Your task to perform on an android device: Clear all items from cart on newegg. Add "bose soundsport free" to the cart on newegg Image 0: 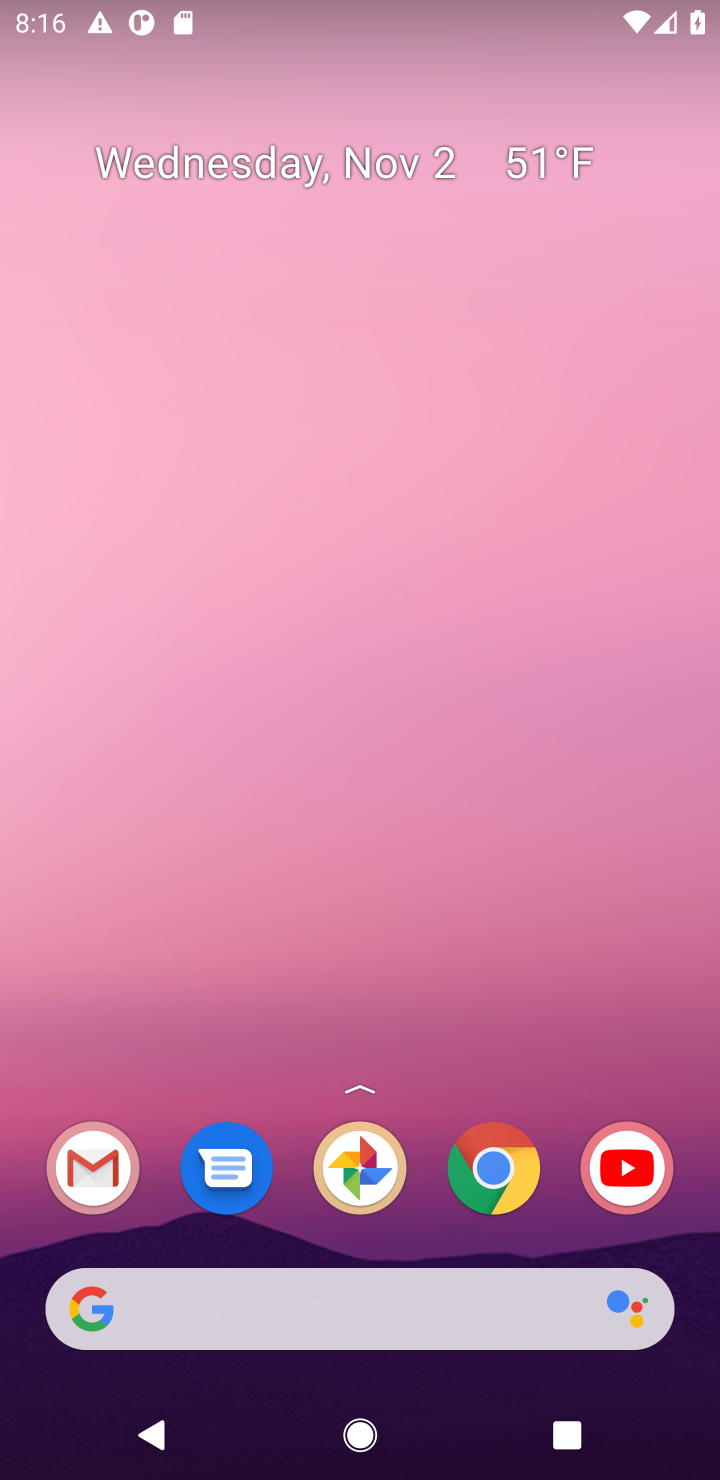
Step 0: click (299, 1315)
Your task to perform on an android device: Clear all items from cart on newegg. Add "bose soundsport free" to the cart on newegg Image 1: 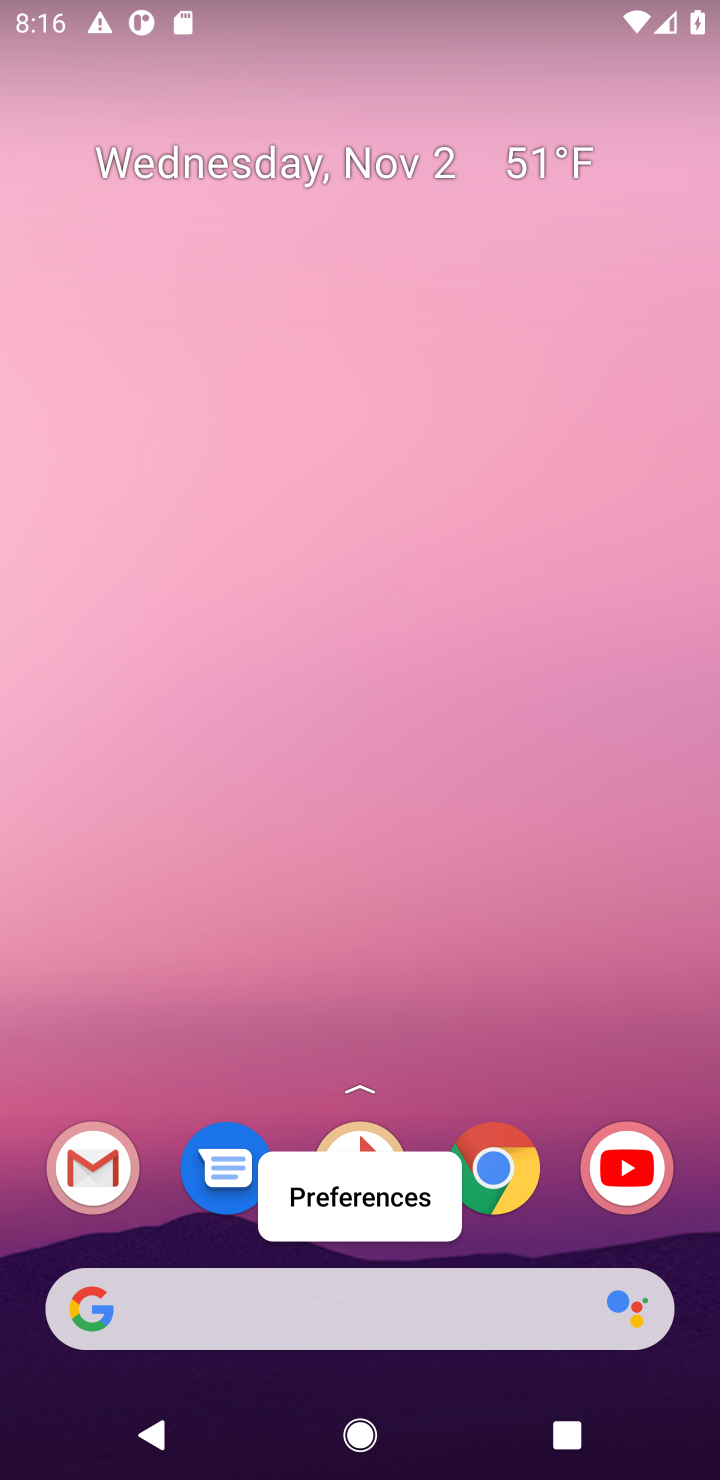
Step 1: click (299, 1315)
Your task to perform on an android device: Clear all items from cart on newegg. Add "bose soundsport free" to the cart on newegg Image 2: 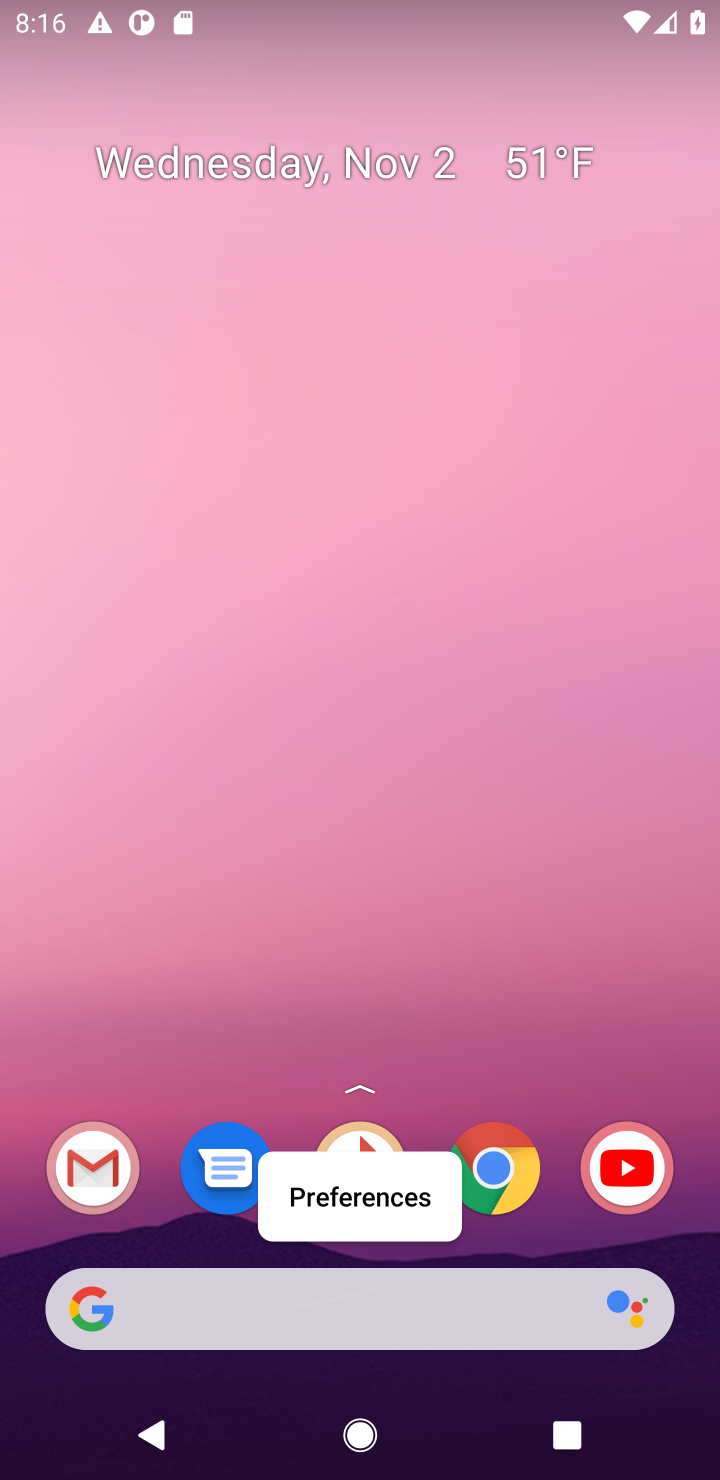
Step 2: click (299, 1315)
Your task to perform on an android device: Clear all items from cart on newegg. Add "bose soundsport free" to the cart on newegg Image 3: 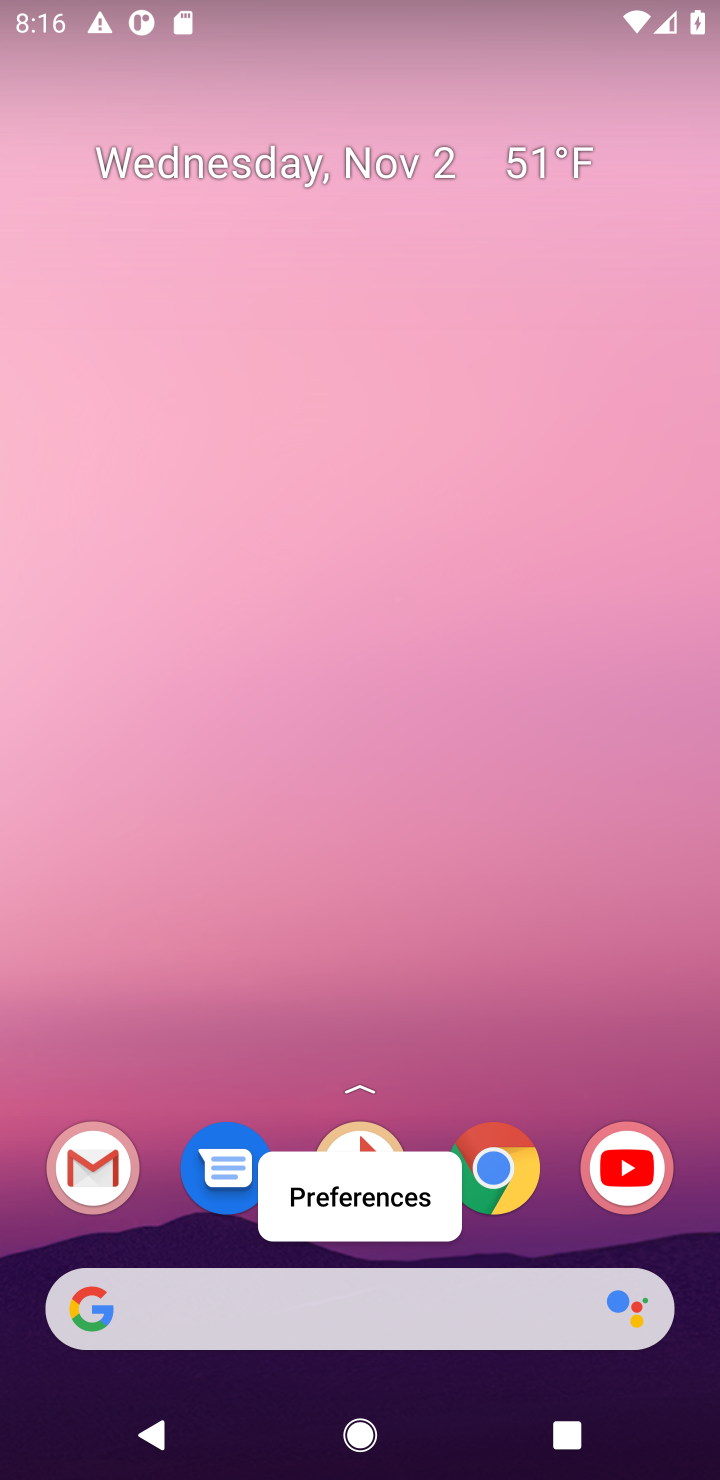
Step 3: click (499, 894)
Your task to perform on an android device: Clear all items from cart on newegg. Add "bose soundsport free" to the cart on newegg Image 4: 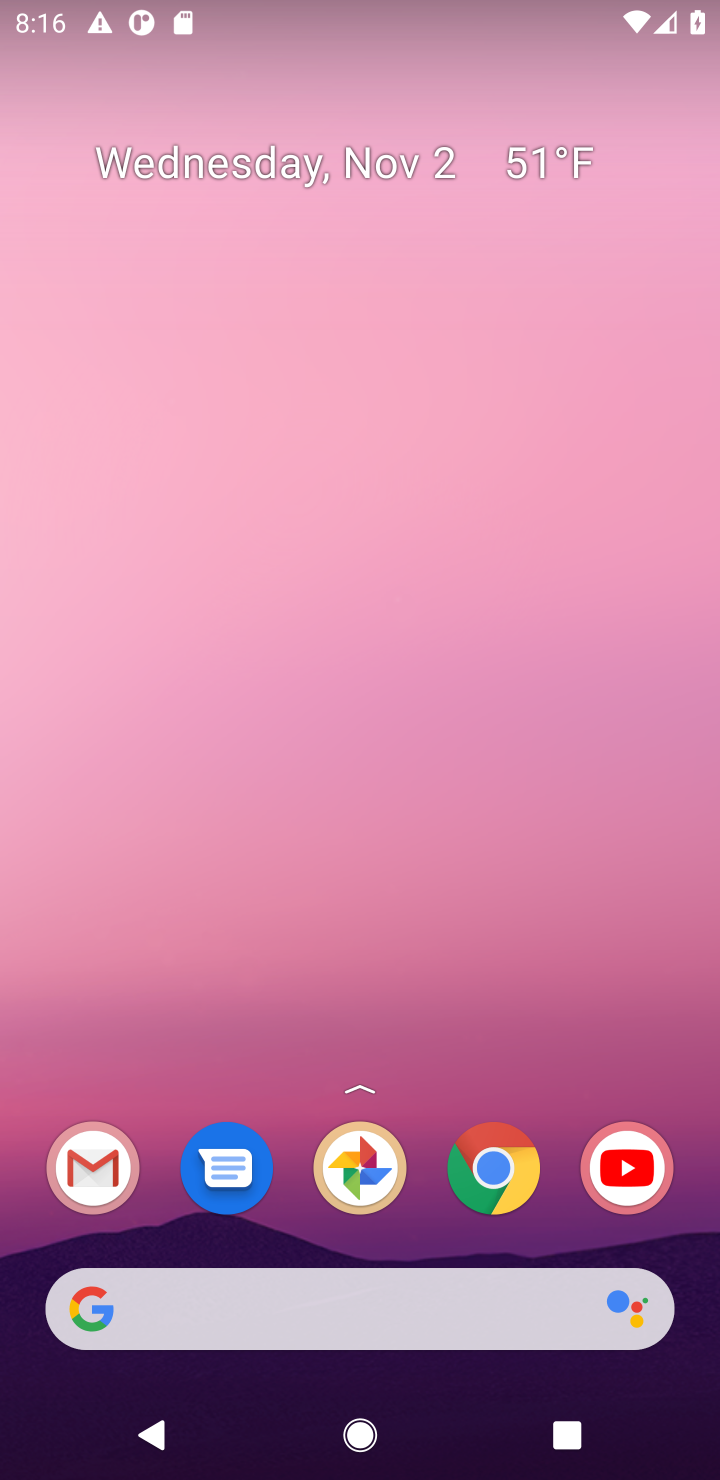
Step 4: click (468, 1179)
Your task to perform on an android device: Clear all items from cart on newegg. Add "bose soundsport free" to the cart on newegg Image 5: 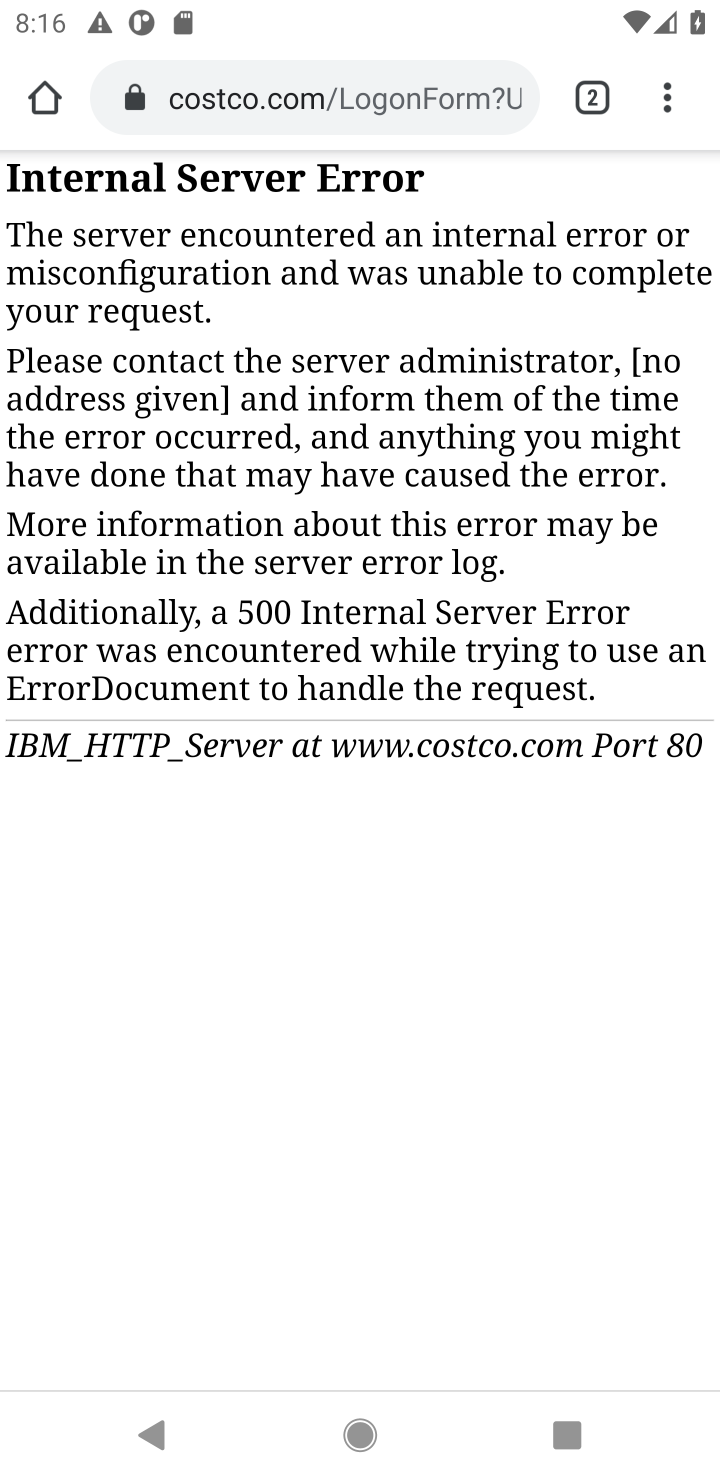
Step 5: click (357, 92)
Your task to perform on an android device: Clear all items from cart on newegg. Add "bose soundsport free" to the cart on newegg Image 6: 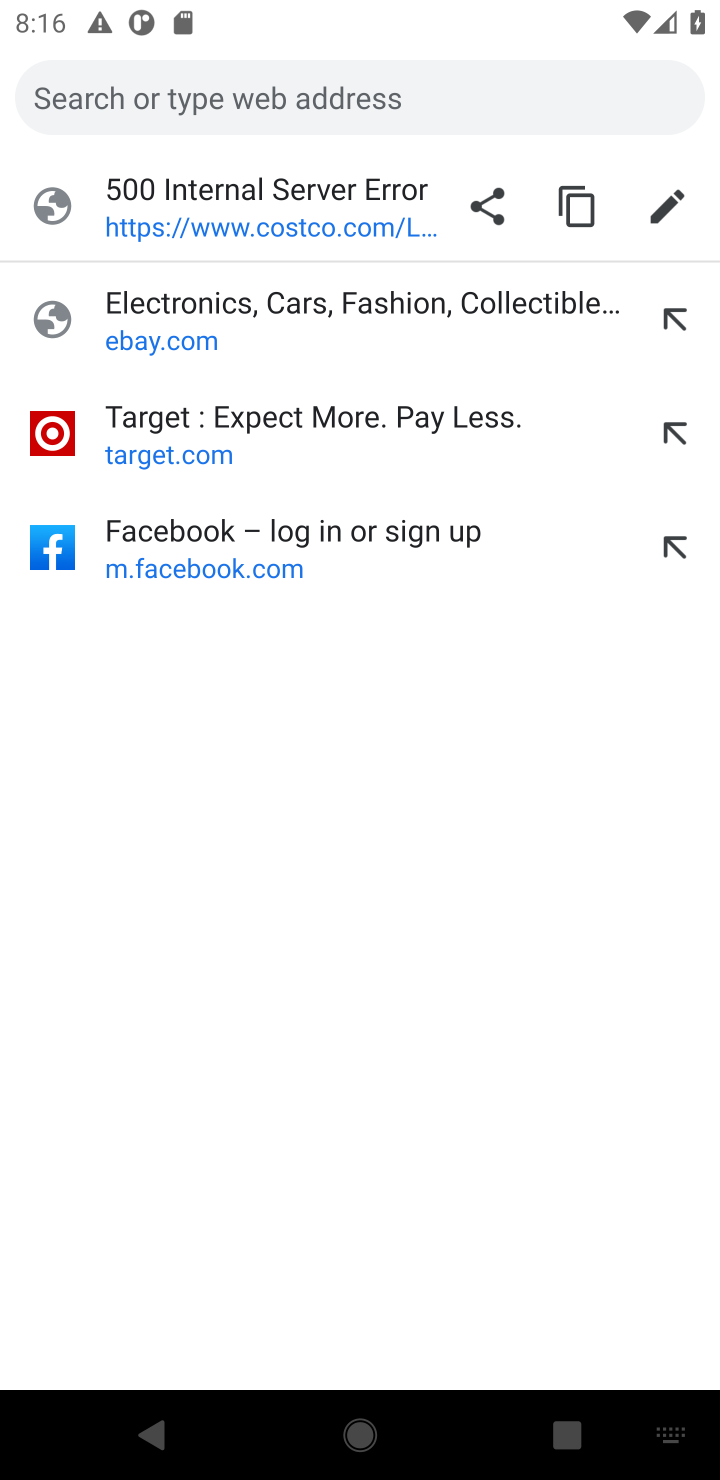
Step 6: type "newegg"
Your task to perform on an android device: Clear all items from cart on newegg. Add "bose soundsport free" to the cart on newegg Image 7: 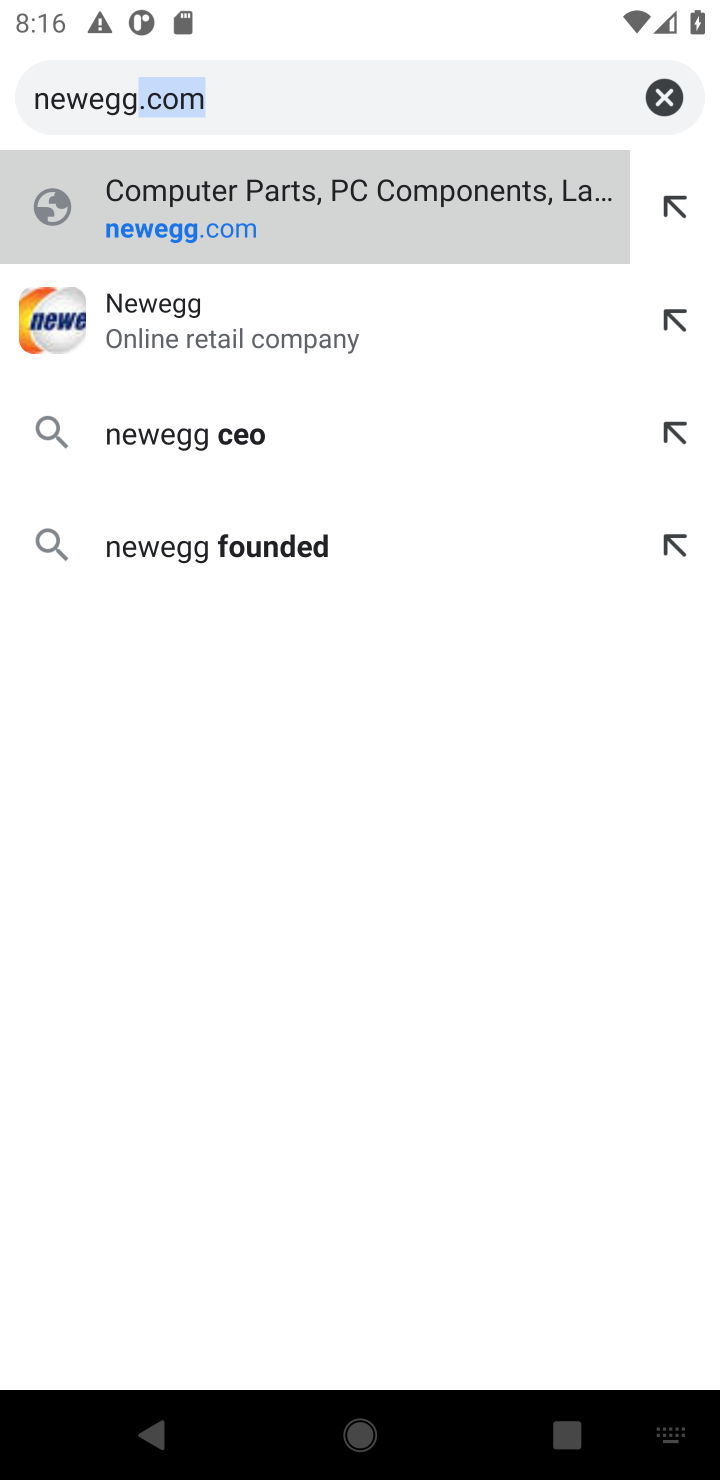
Step 7: type ""
Your task to perform on an android device: Clear all items from cart on newegg. Add "bose soundsport free" to the cart on newegg Image 8: 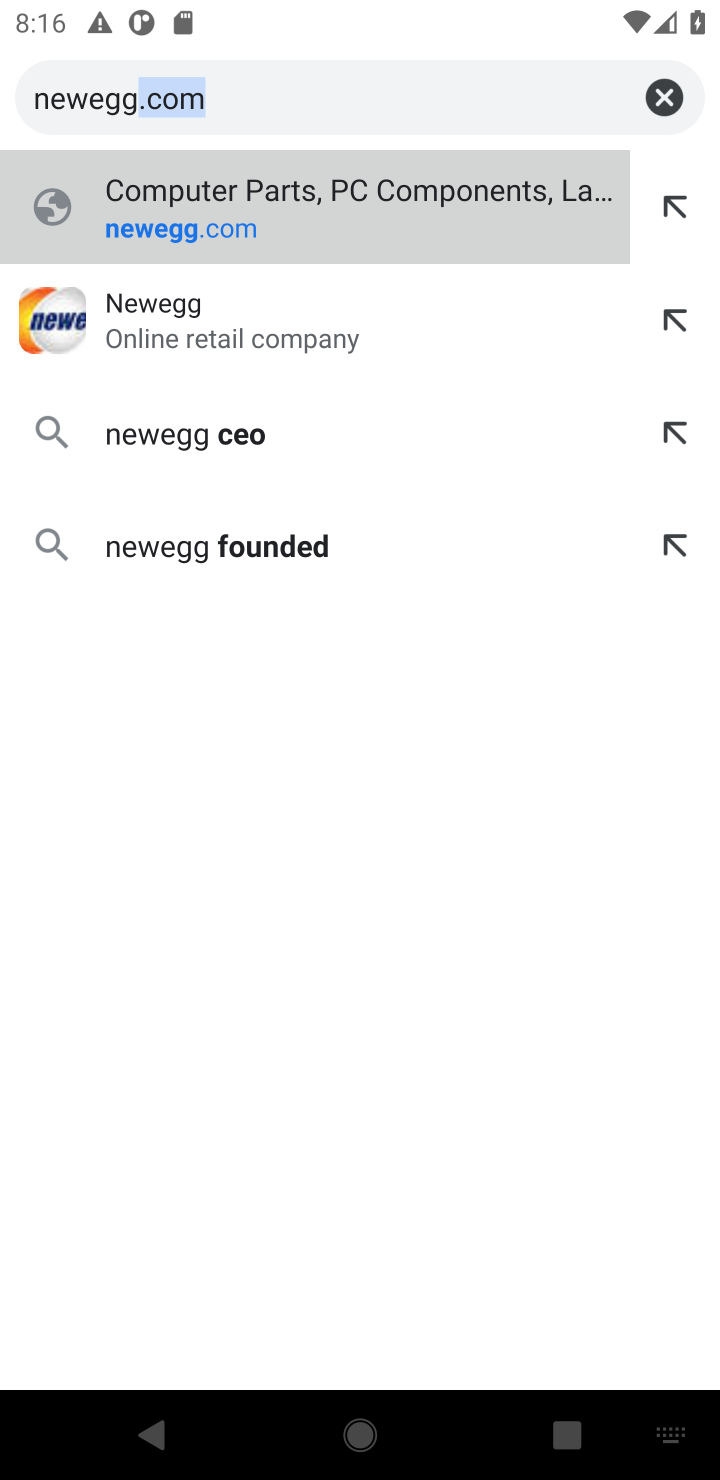
Step 8: click (232, 219)
Your task to perform on an android device: Clear all items from cart on newegg. Add "bose soundsport free" to the cart on newegg Image 9: 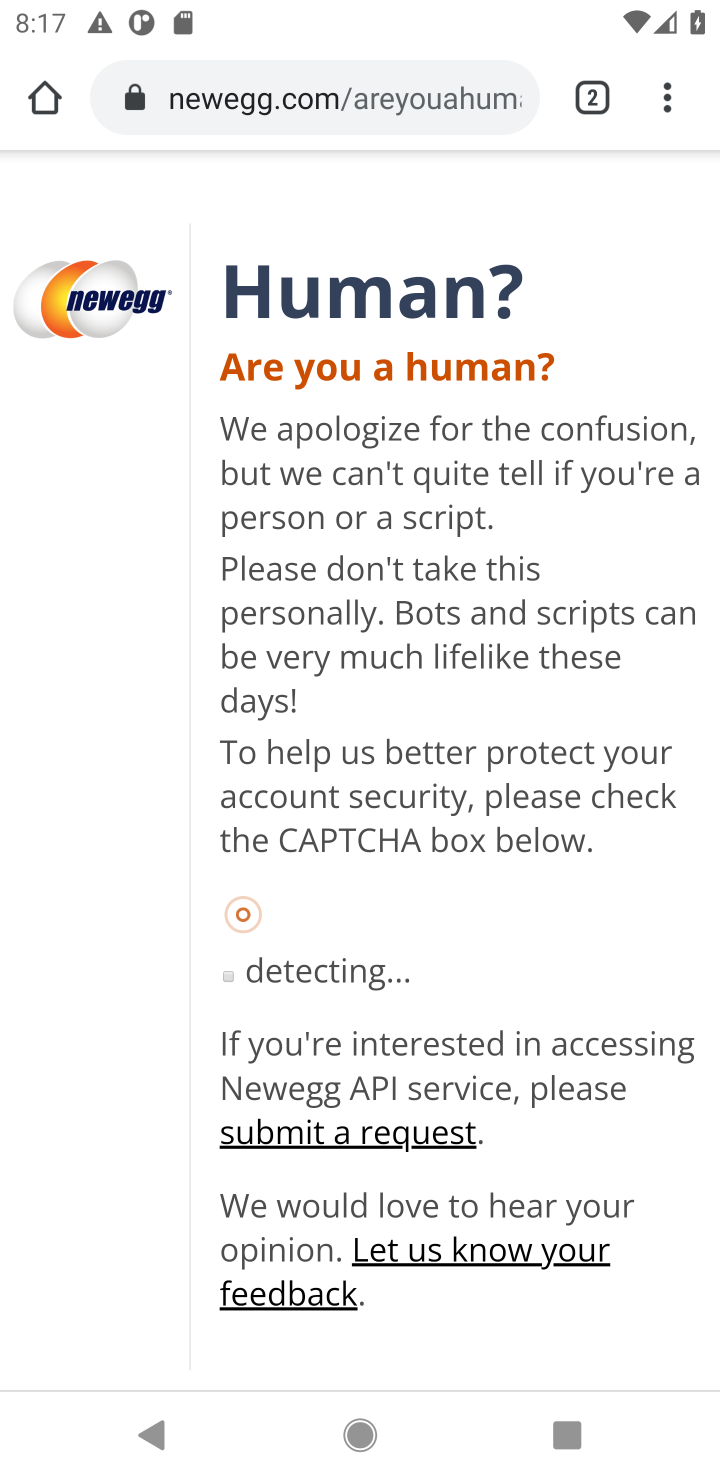
Step 9: drag from (400, 980) to (348, 812)
Your task to perform on an android device: Clear all items from cart on newegg. Add "bose soundsport free" to the cart on newegg Image 10: 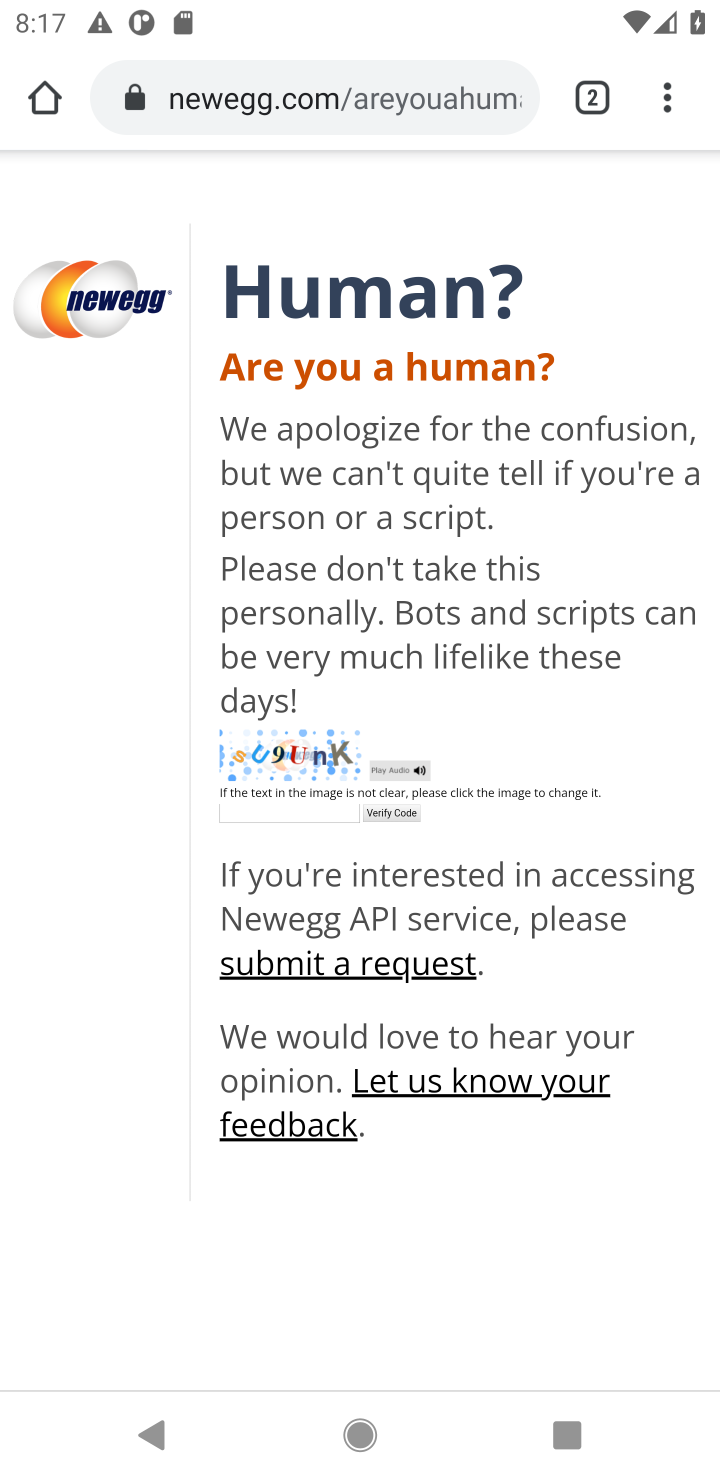
Step 10: click (310, 811)
Your task to perform on an android device: Clear all items from cart on newegg. Add "bose soundsport free" to the cart on newegg Image 11: 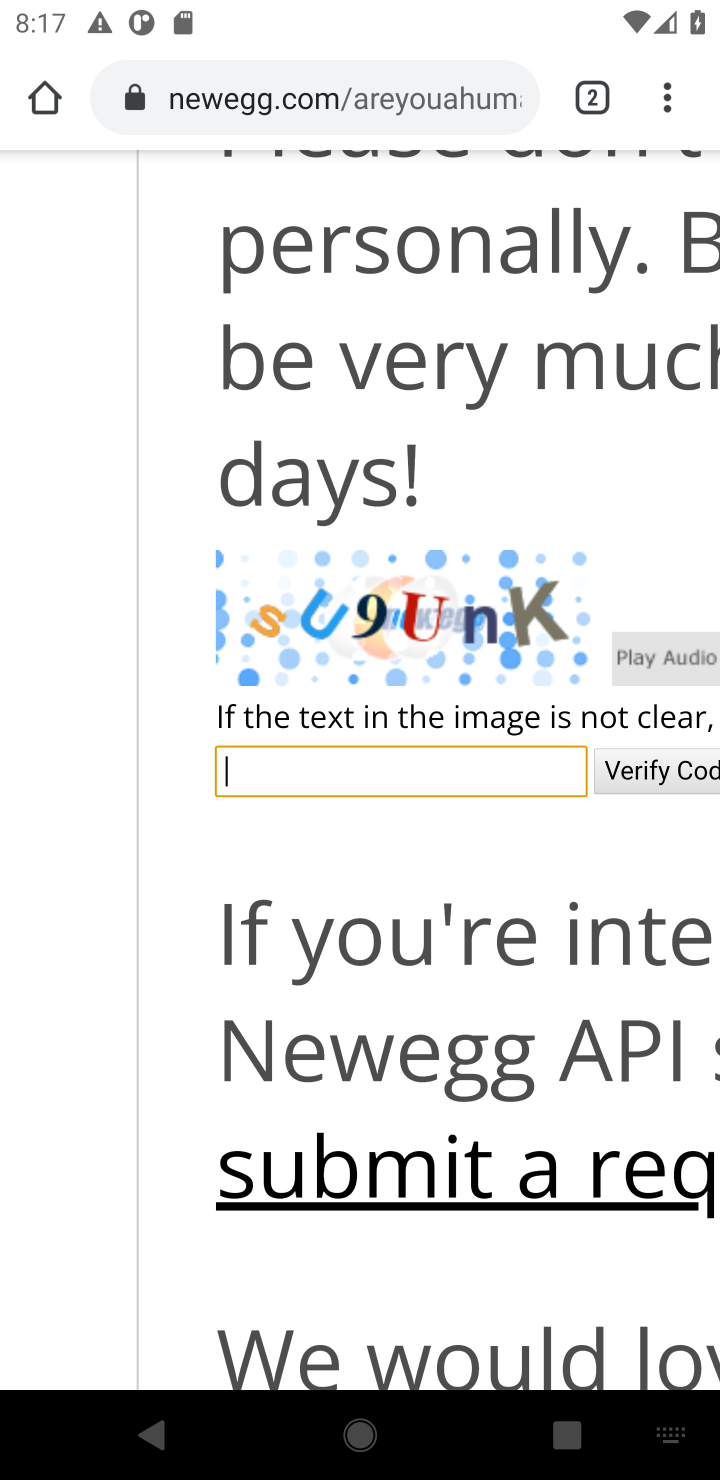
Step 11: type "sU9UnK"
Your task to perform on an android device: Clear all items from cart on newegg. Add "bose soundsport free" to the cart on newegg Image 12: 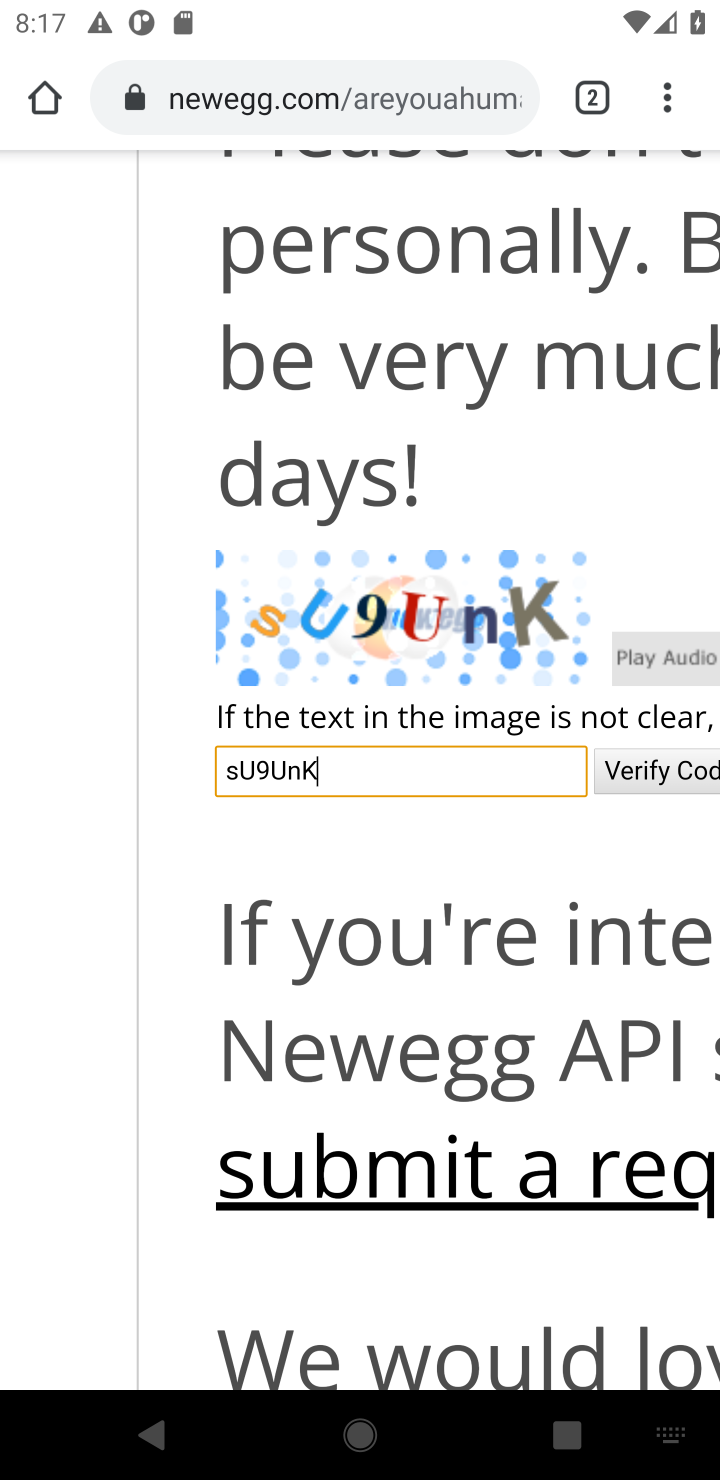
Step 12: type ""
Your task to perform on an android device: Clear all items from cart on newegg. Add "bose soundsport free" to the cart on newegg Image 13: 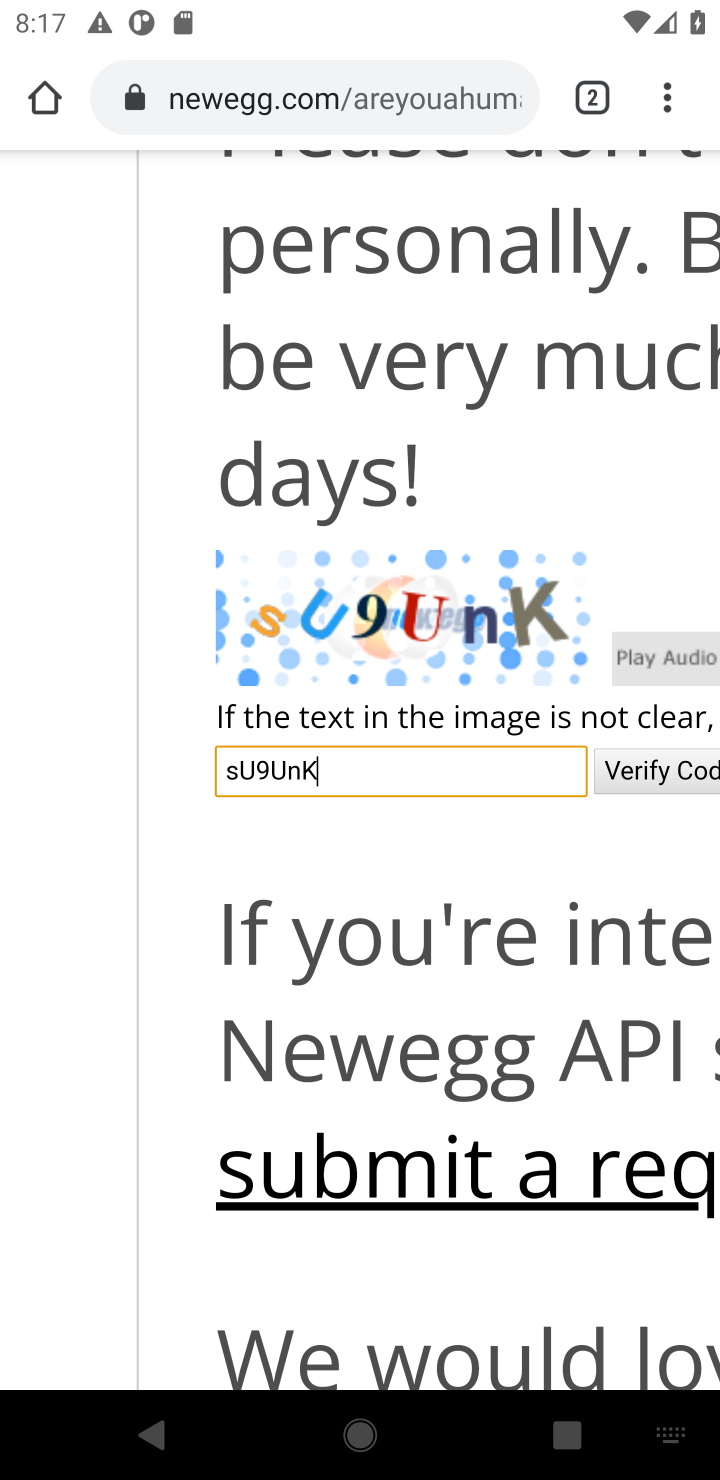
Step 13: press enter
Your task to perform on an android device: Clear all items from cart on newegg. Add "bose soundsport free" to the cart on newegg Image 14: 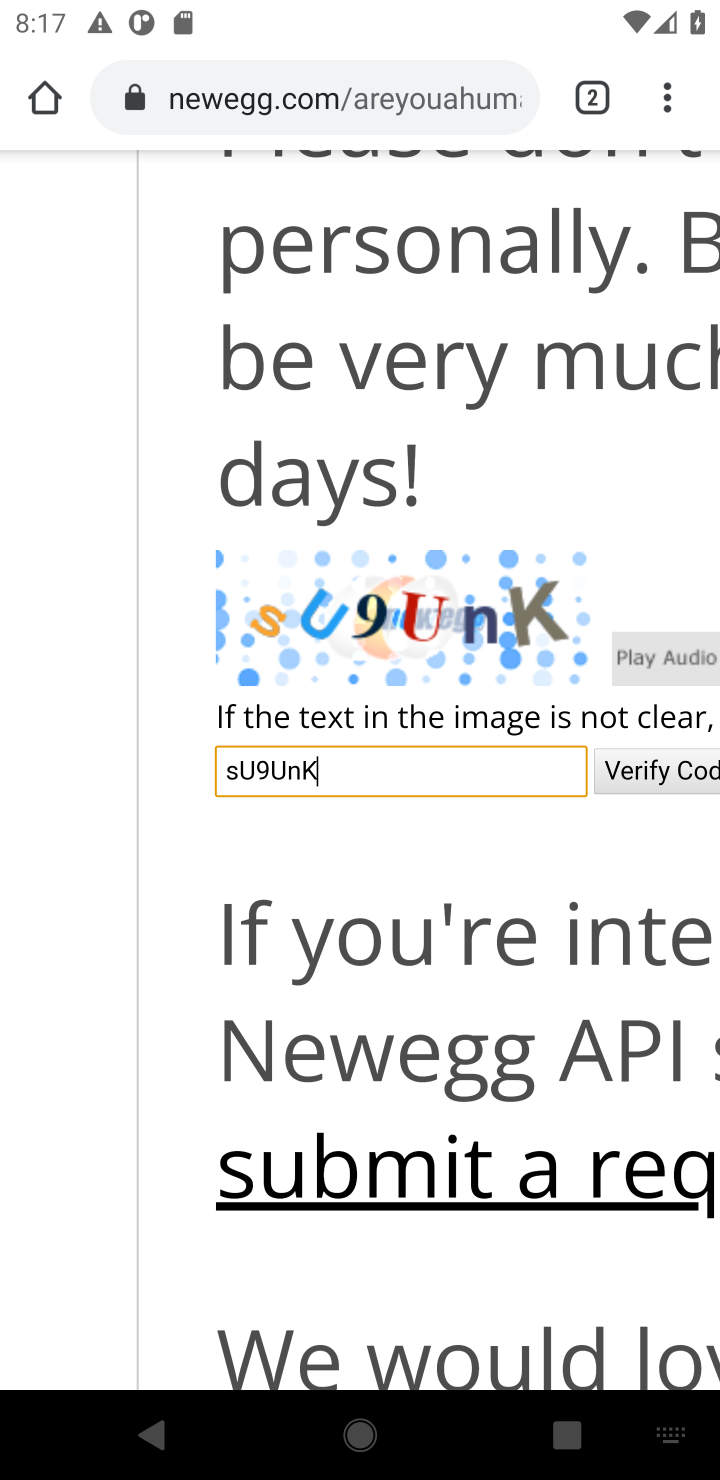
Step 14: press enter
Your task to perform on an android device: Clear all items from cart on newegg. Add "bose soundsport free" to the cart on newegg Image 15: 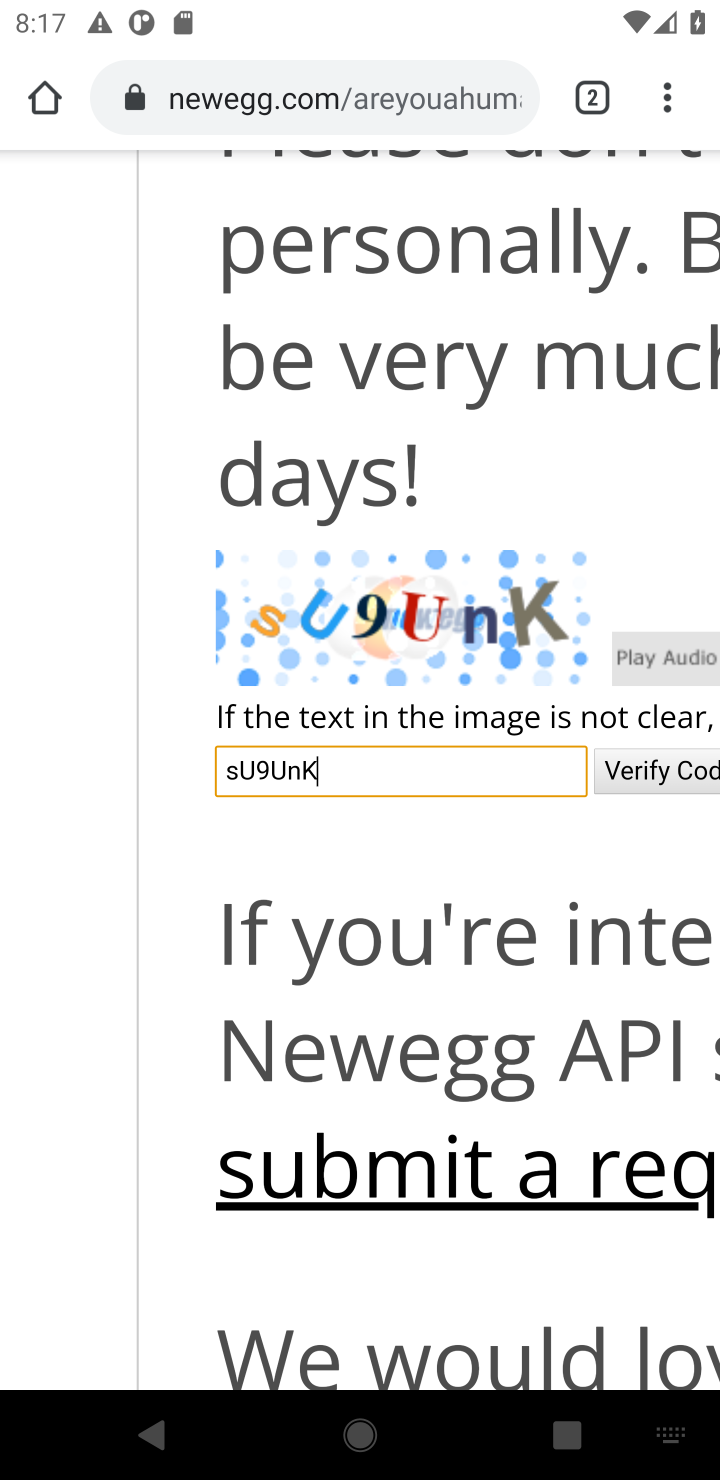
Step 15: click (636, 778)
Your task to perform on an android device: Clear all items from cart on newegg. Add "bose soundsport free" to the cart on newegg Image 16: 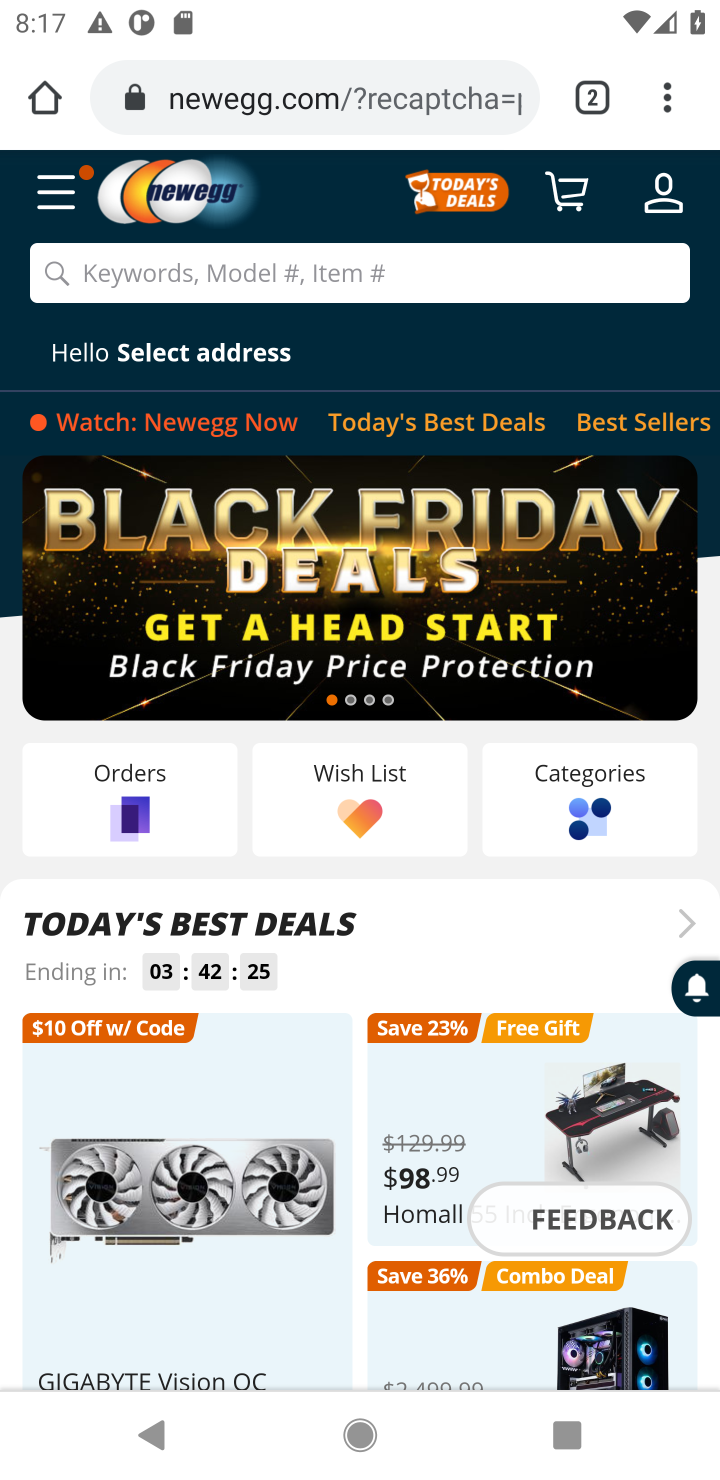
Step 16: click (210, 268)
Your task to perform on an android device: Clear all items from cart on newegg. Add "bose soundsport free" to the cart on newegg Image 17: 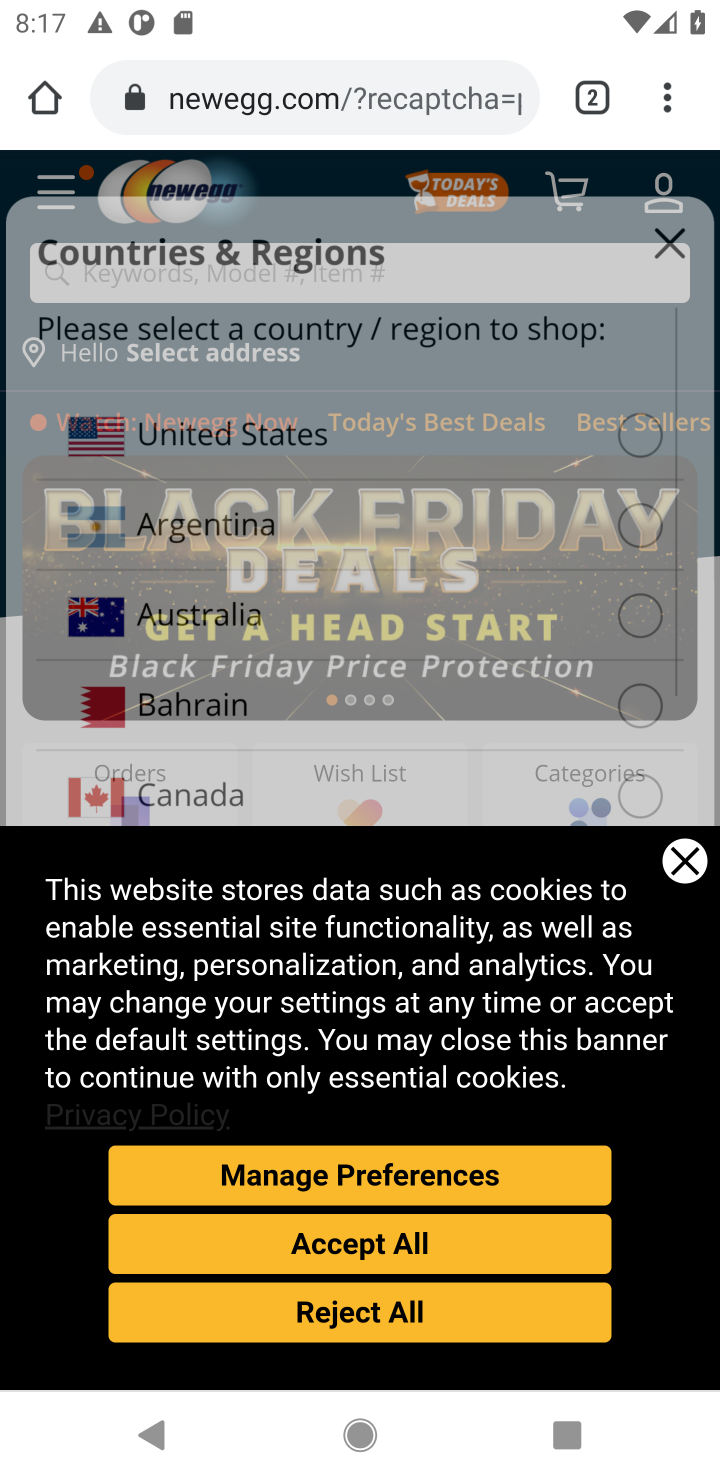
Step 17: click (368, 1237)
Your task to perform on an android device: Clear all items from cart on newegg. Add "bose soundsport free" to the cart on newegg Image 18: 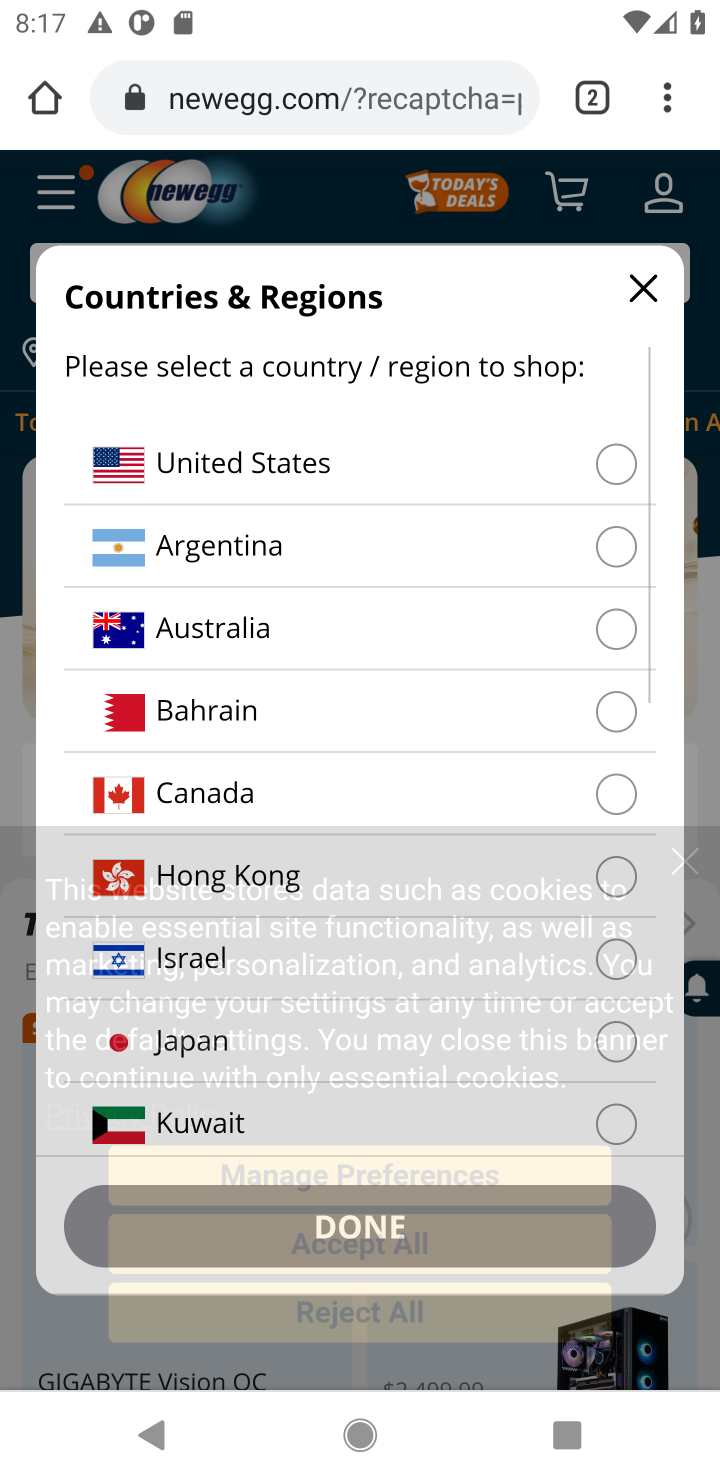
Step 18: click (696, 869)
Your task to perform on an android device: Clear all items from cart on newegg. Add "bose soundsport free" to the cart on newegg Image 19: 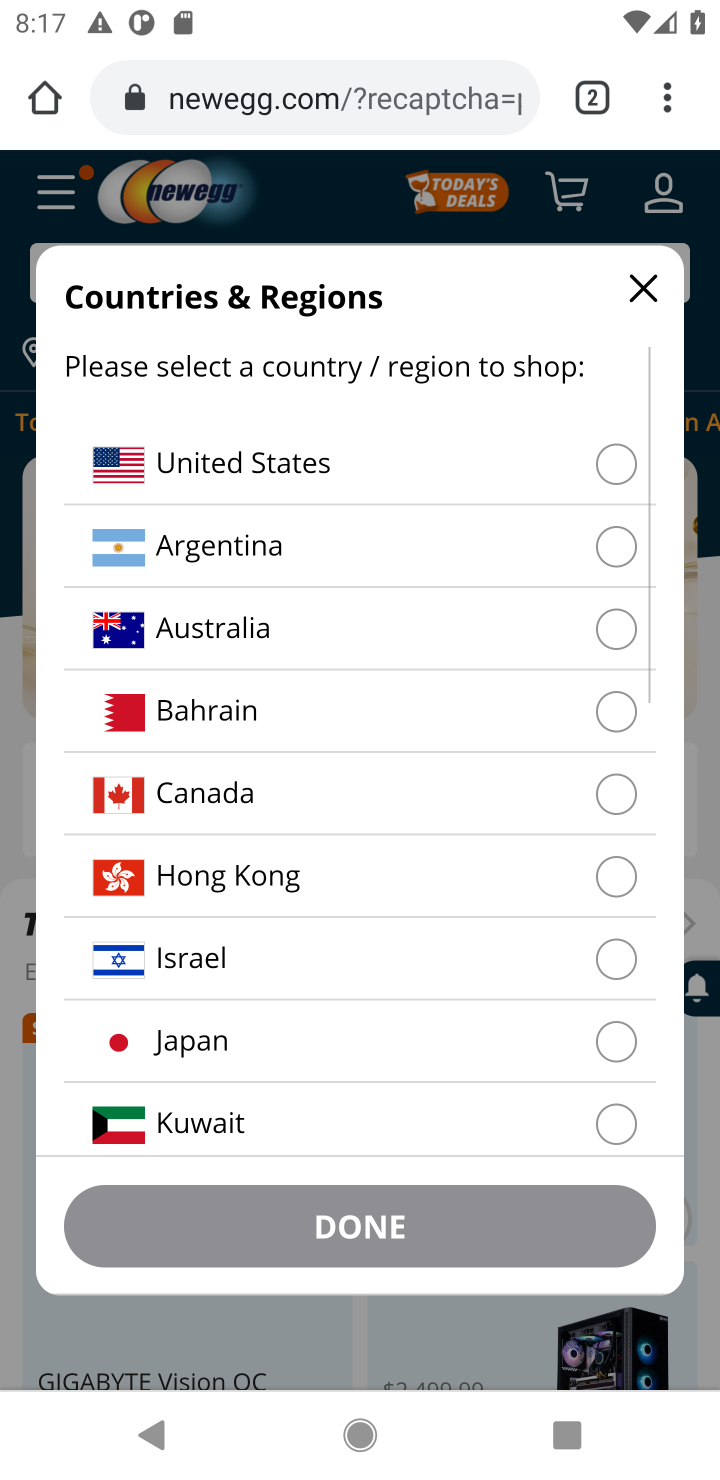
Step 19: click (605, 457)
Your task to perform on an android device: Clear all items from cart on newegg. Add "bose soundsport free" to the cart on newegg Image 20: 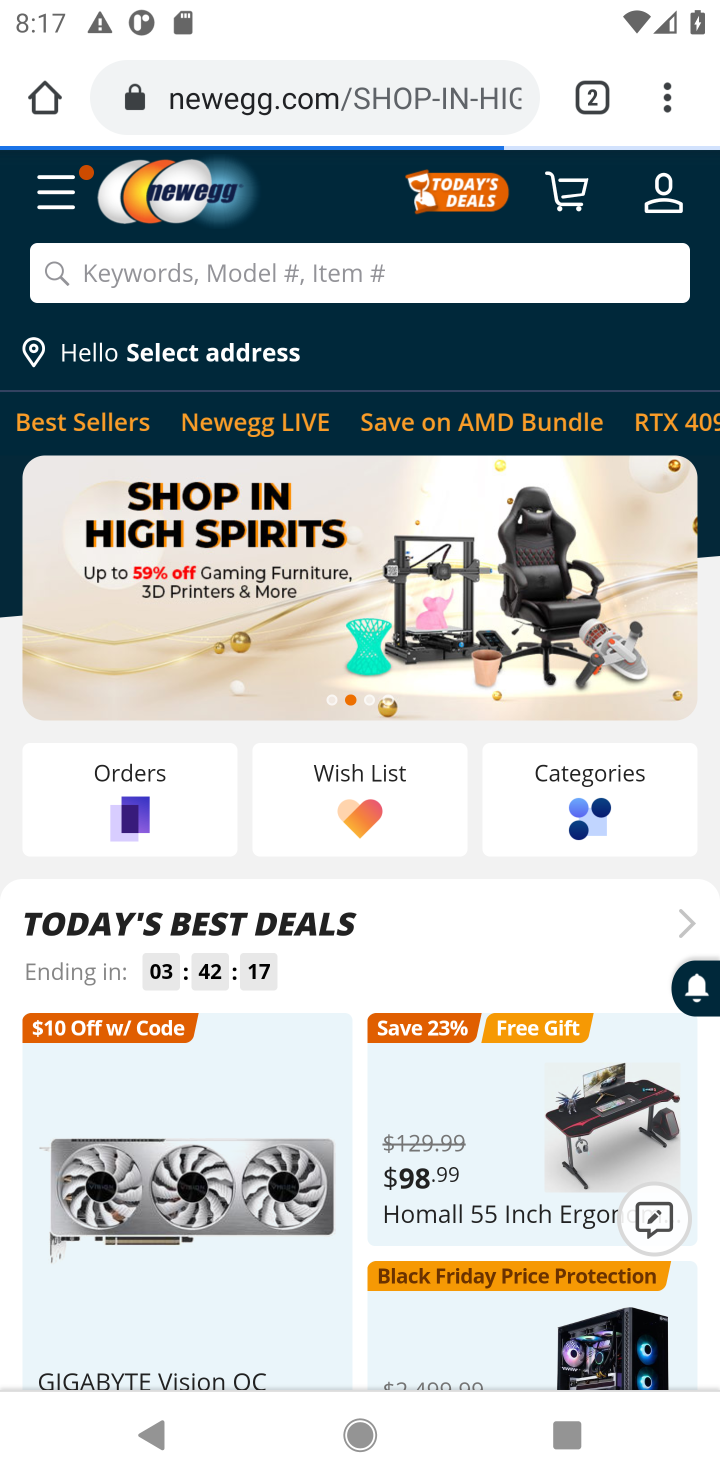
Step 20: click (267, 268)
Your task to perform on an android device: Clear all items from cart on newegg. Add "bose soundsport free" to the cart on newegg Image 21: 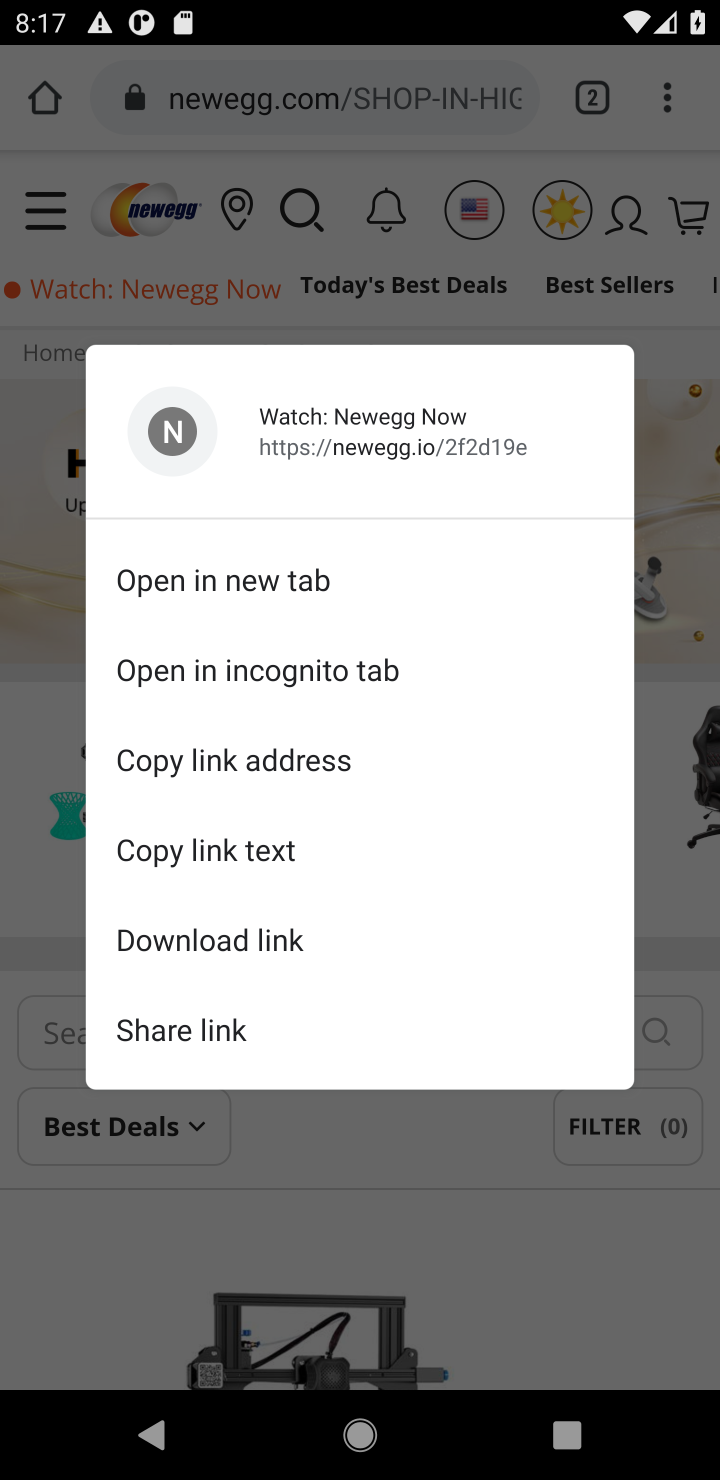
Step 21: click (306, 213)
Your task to perform on an android device: Clear all items from cart on newegg. Add "bose soundsport free" to the cart on newegg Image 22: 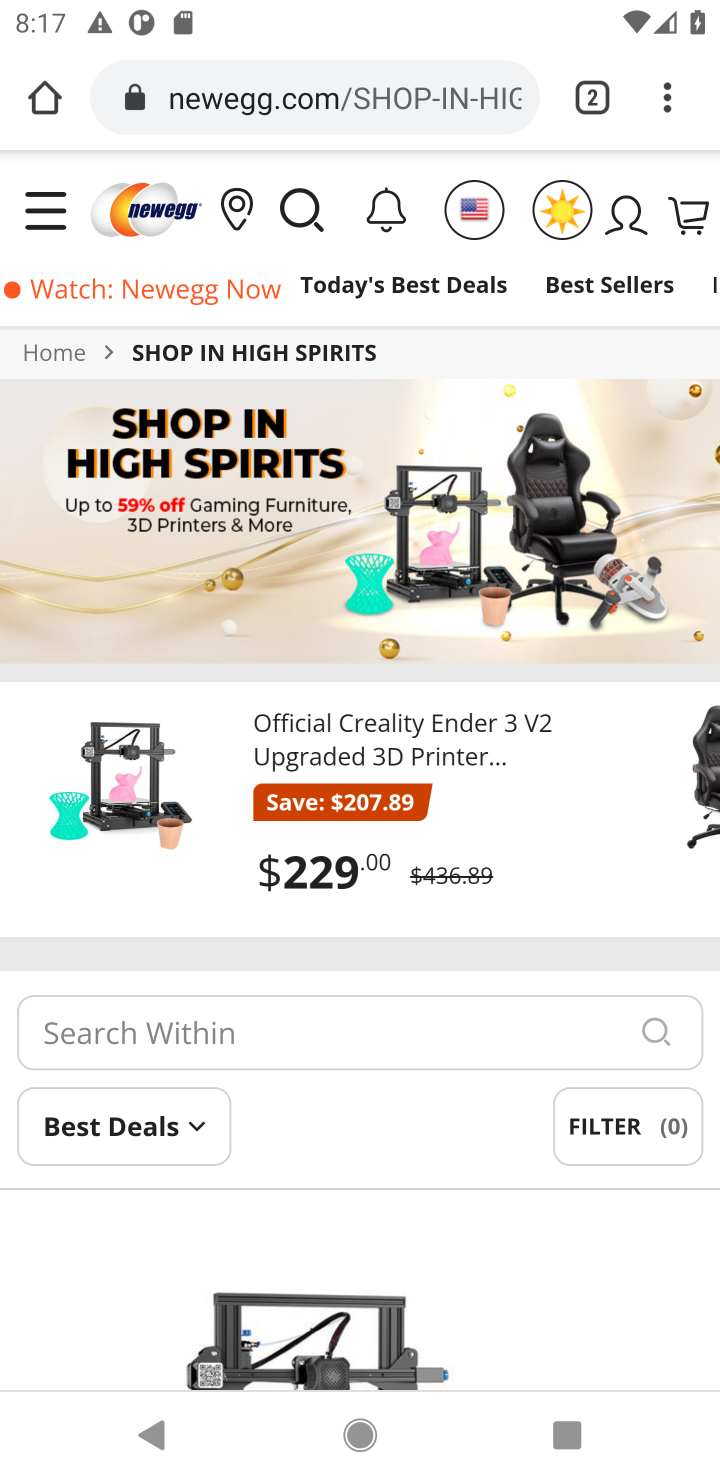
Step 22: drag from (412, 604) to (408, 1205)
Your task to perform on an android device: Clear all items from cart on newegg. Add "bose soundsport free" to the cart on newegg Image 23: 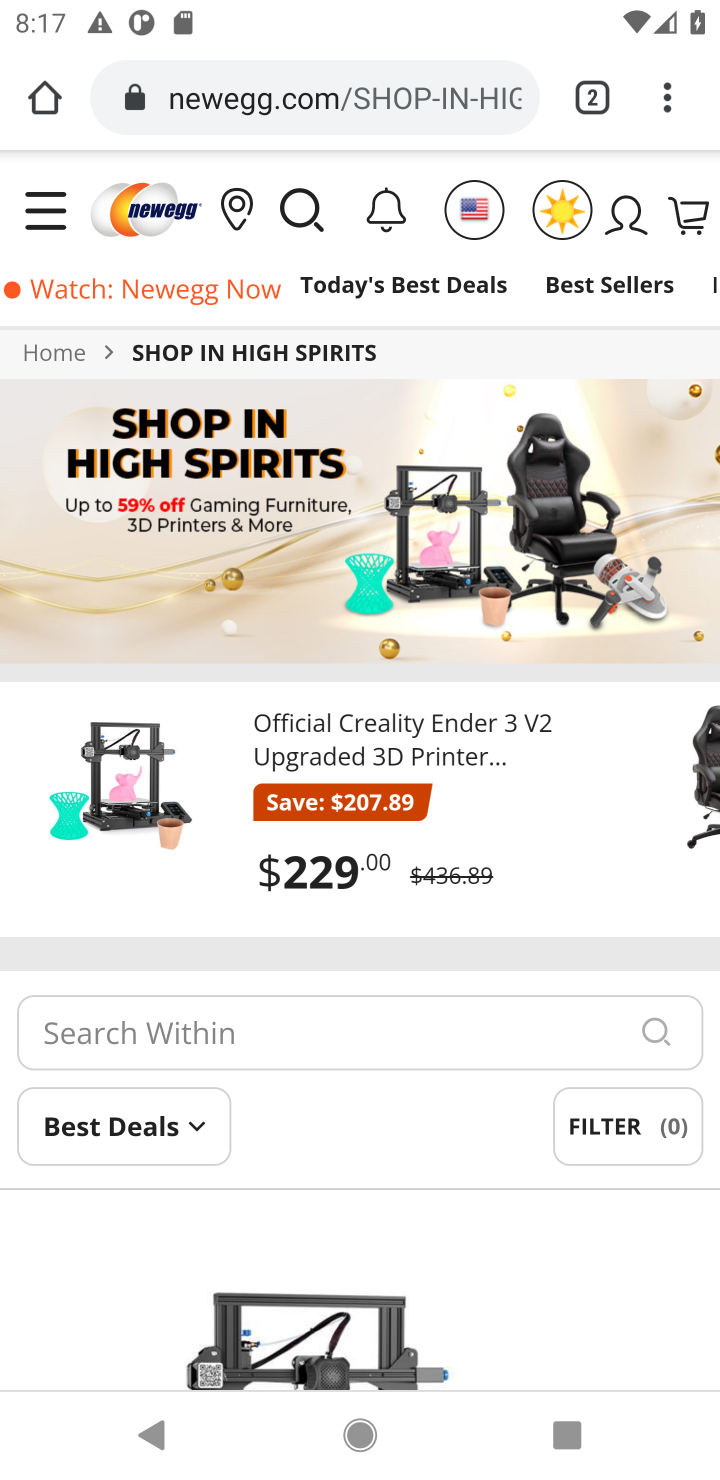
Step 23: click (322, 1031)
Your task to perform on an android device: Clear all items from cart on newegg. Add "bose soundsport free" to the cart on newegg Image 24: 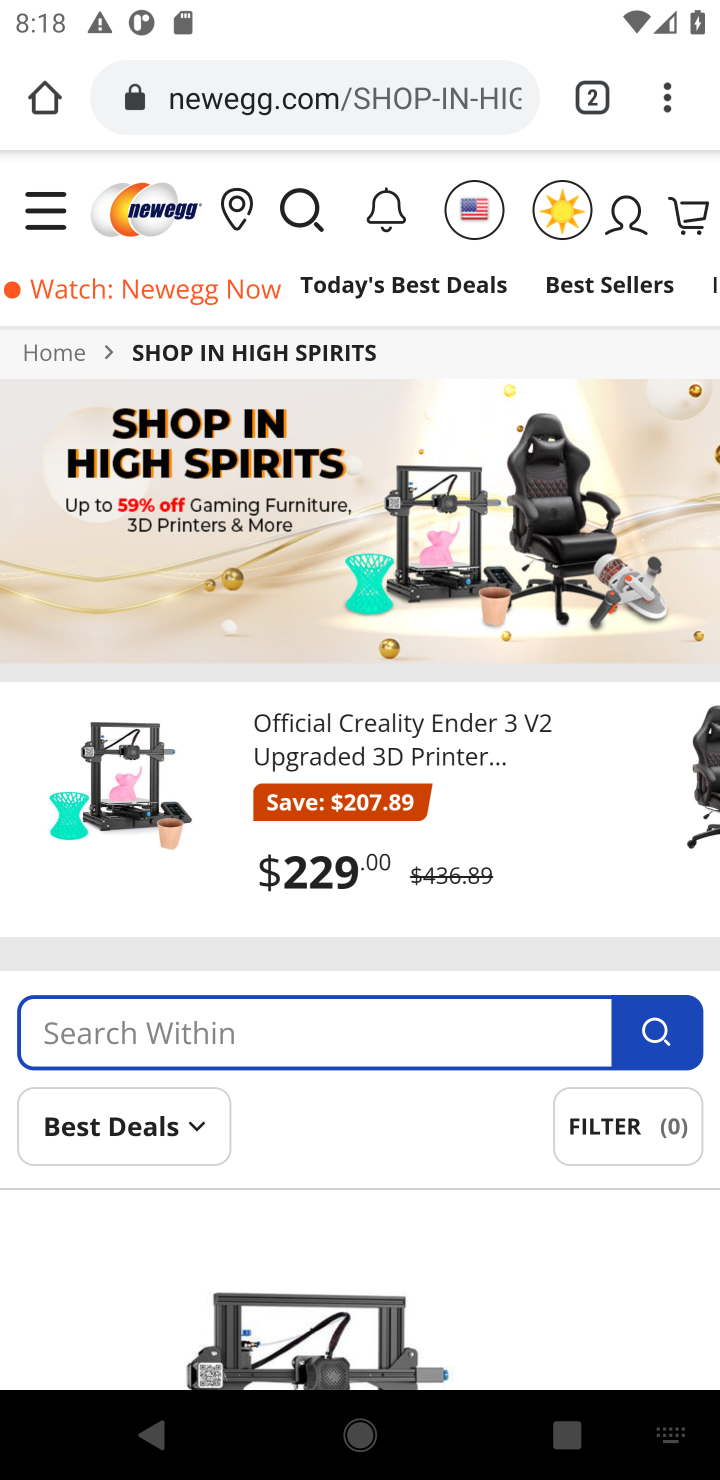
Step 24: type "bose soundsport free"
Your task to perform on an android device: Clear all items from cart on newegg. Add "bose soundsport free" to the cart on newegg Image 25: 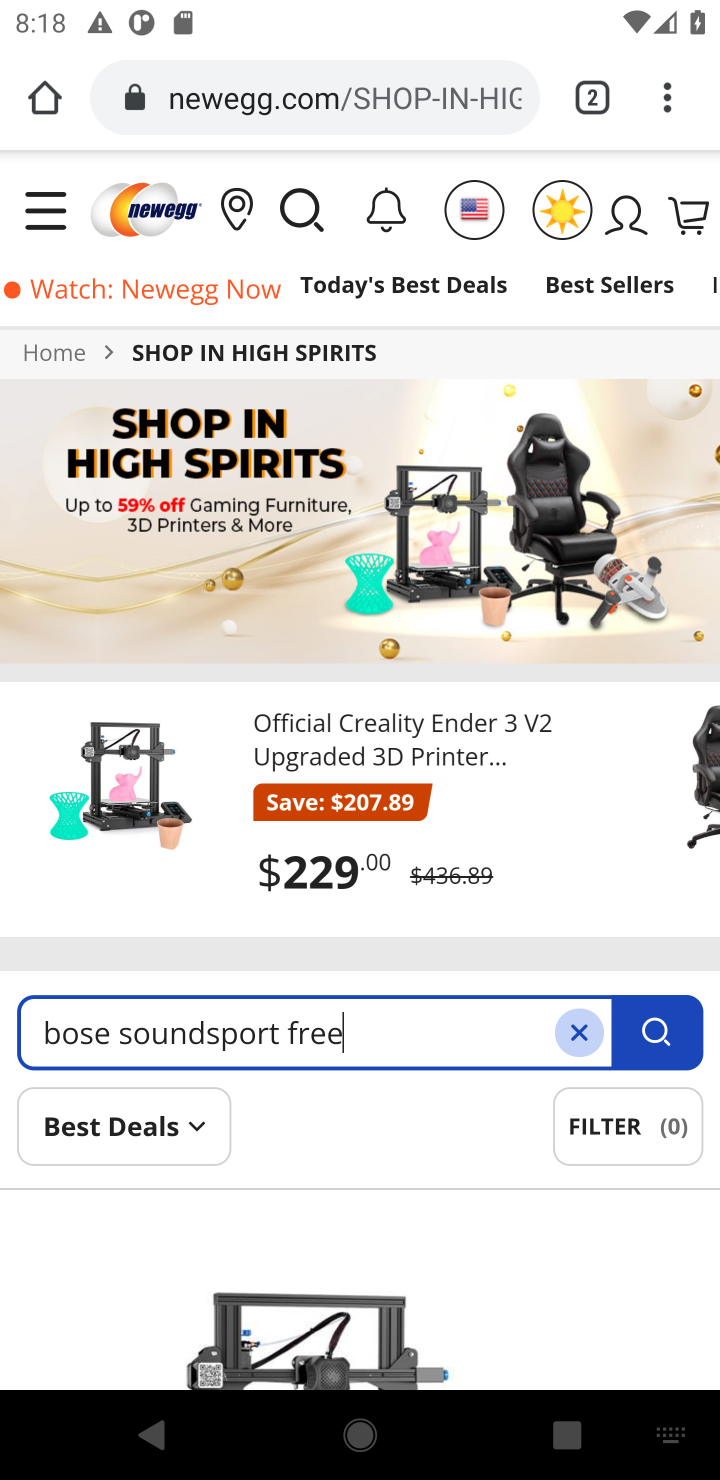
Step 25: type ""
Your task to perform on an android device: Clear all items from cart on newegg. Add "bose soundsport free" to the cart on newegg Image 26: 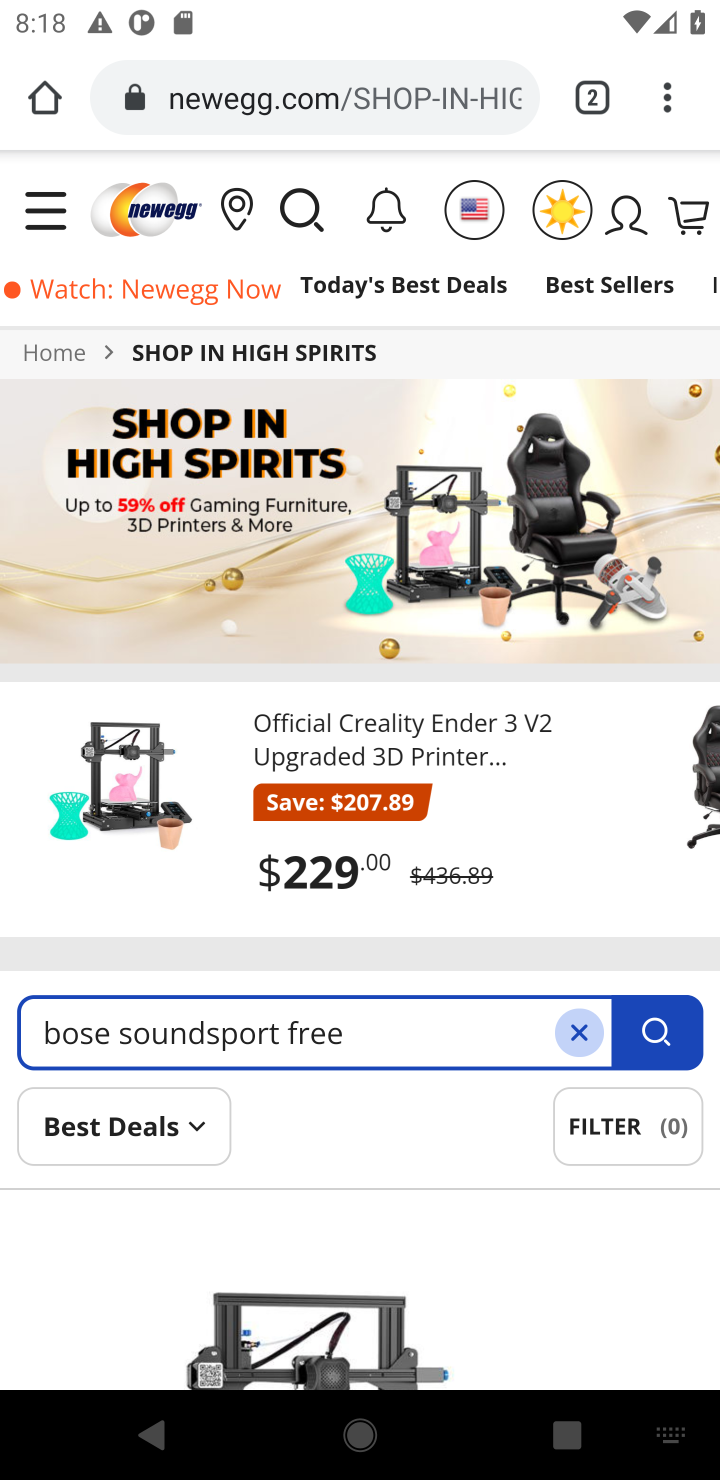
Step 26: press enter
Your task to perform on an android device: Clear all items from cart on newegg. Add "bose soundsport free" to the cart on newegg Image 27: 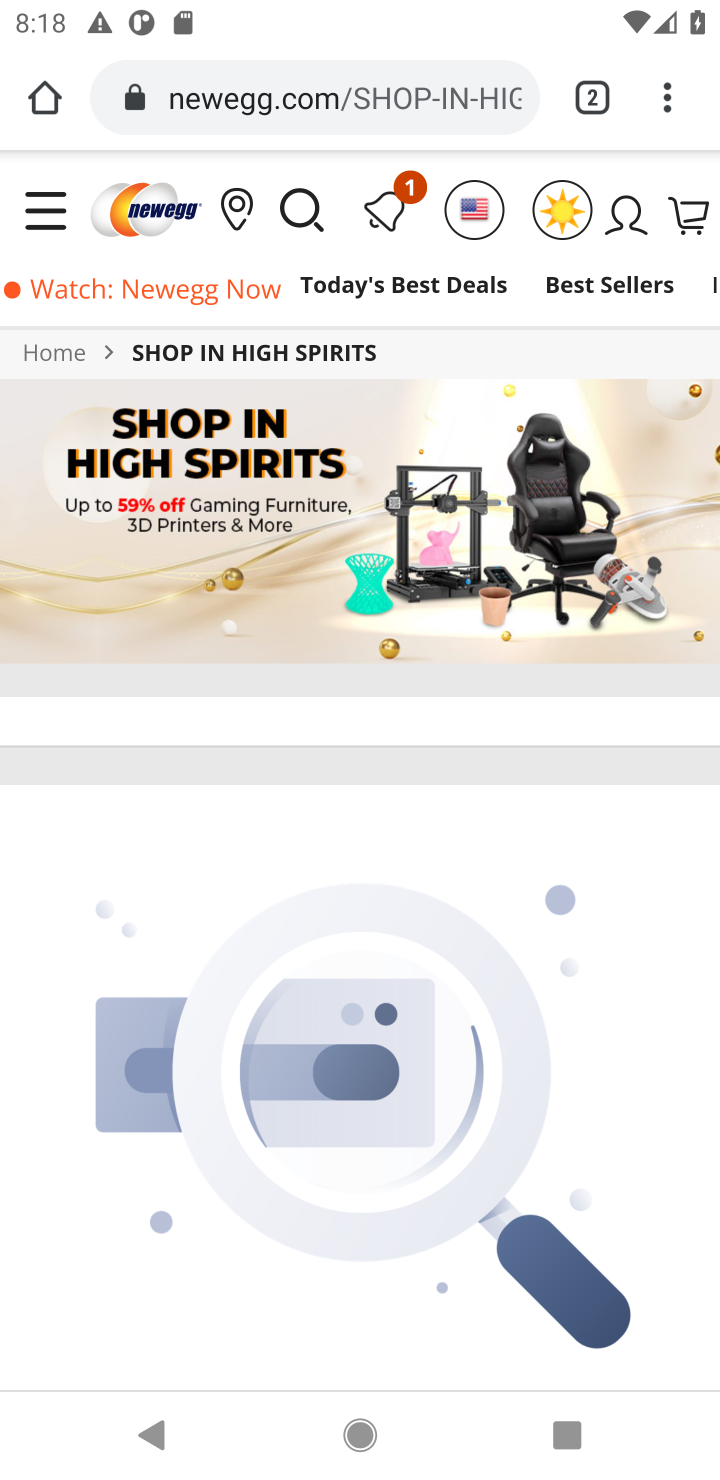
Step 27: task complete